Your task to perform on an android device: toggle translation in the chrome app Image 0: 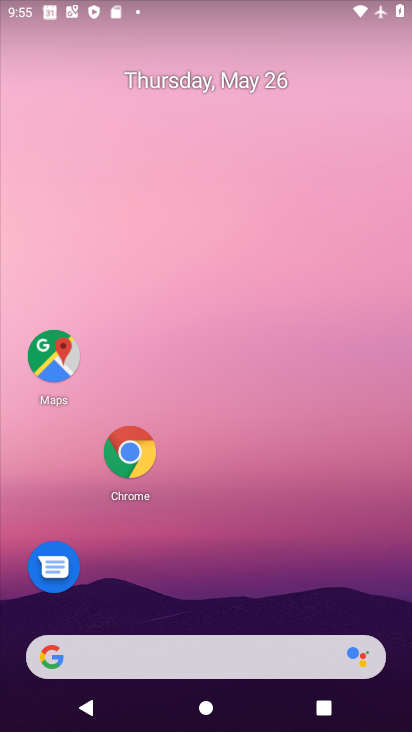
Step 0: click (125, 451)
Your task to perform on an android device: toggle translation in the chrome app Image 1: 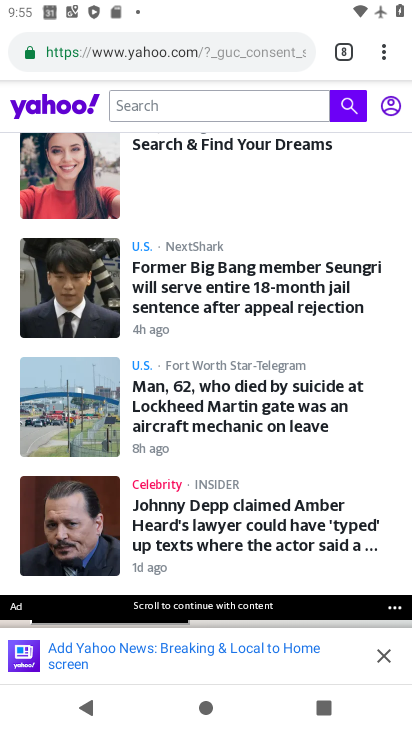
Step 1: drag from (386, 50) to (237, 610)
Your task to perform on an android device: toggle translation in the chrome app Image 2: 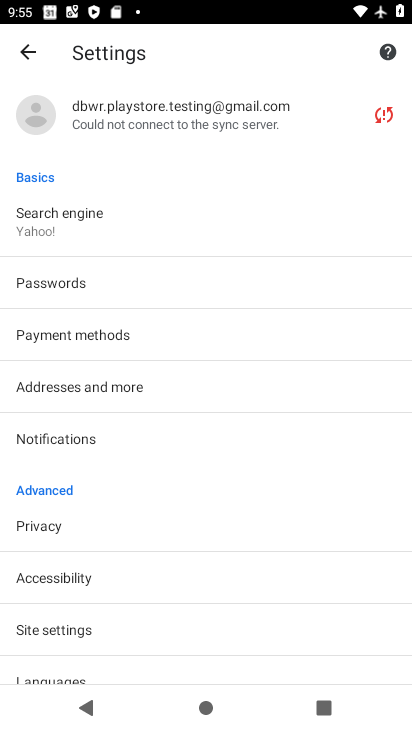
Step 2: drag from (129, 646) to (271, 292)
Your task to perform on an android device: toggle translation in the chrome app Image 3: 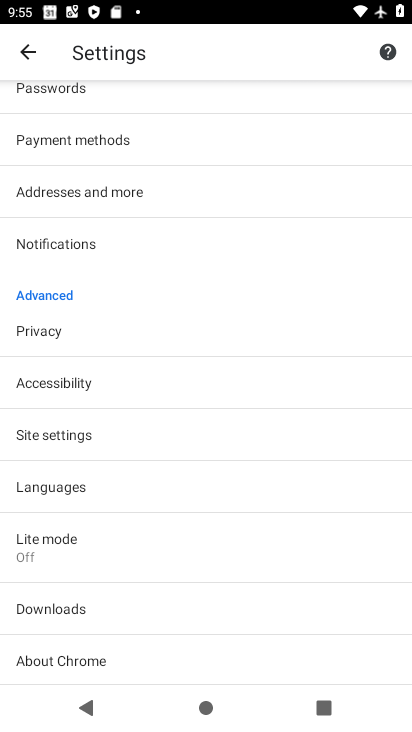
Step 3: click (112, 482)
Your task to perform on an android device: toggle translation in the chrome app Image 4: 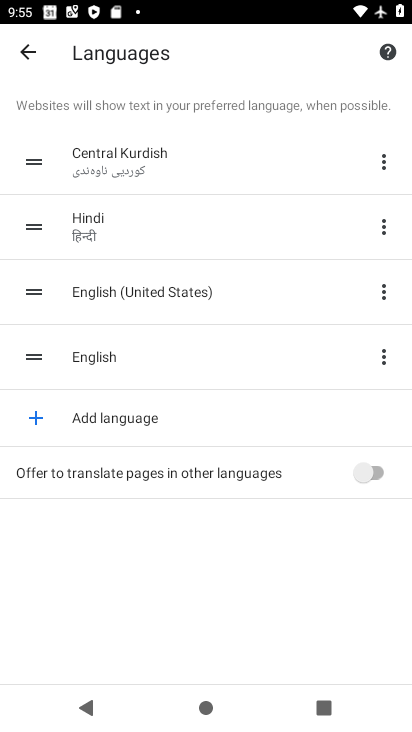
Step 4: click (378, 470)
Your task to perform on an android device: toggle translation in the chrome app Image 5: 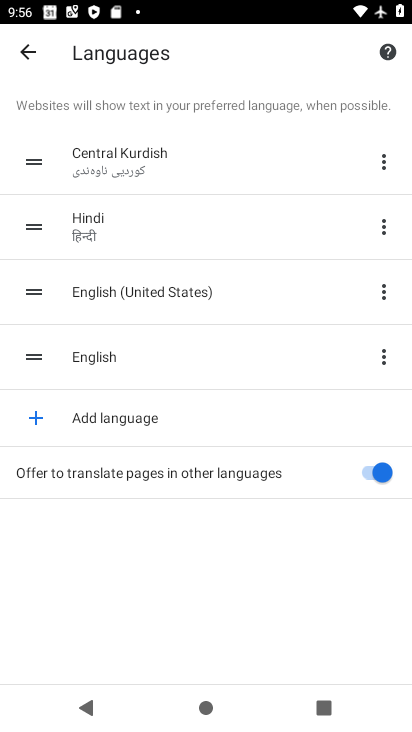
Step 5: task complete